Your task to perform on an android device: stop showing notifications on the lock screen Image 0: 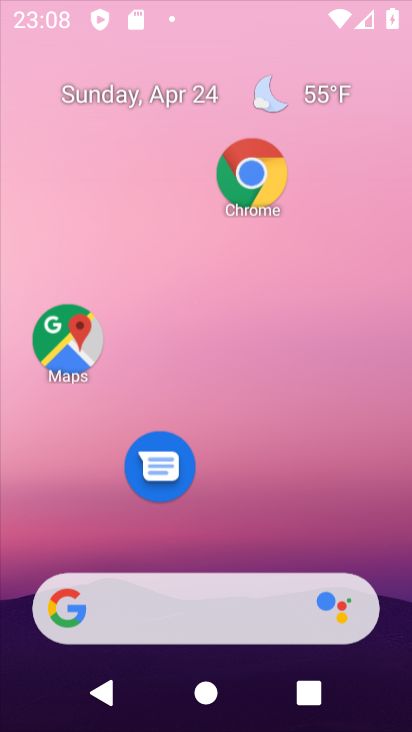
Step 0: drag from (253, 236) to (253, 35)
Your task to perform on an android device: stop showing notifications on the lock screen Image 1: 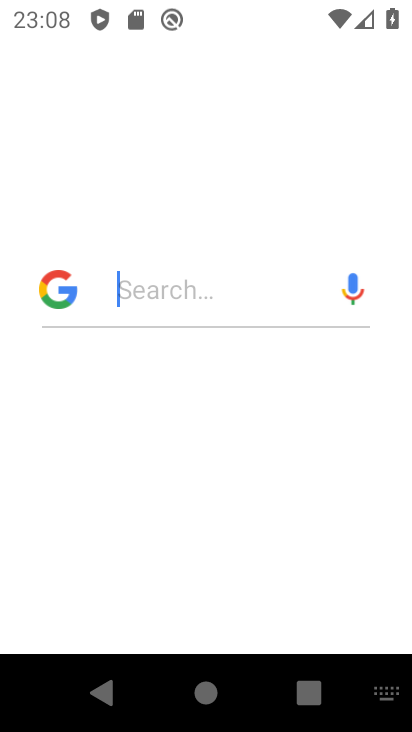
Step 1: press home button
Your task to perform on an android device: stop showing notifications on the lock screen Image 2: 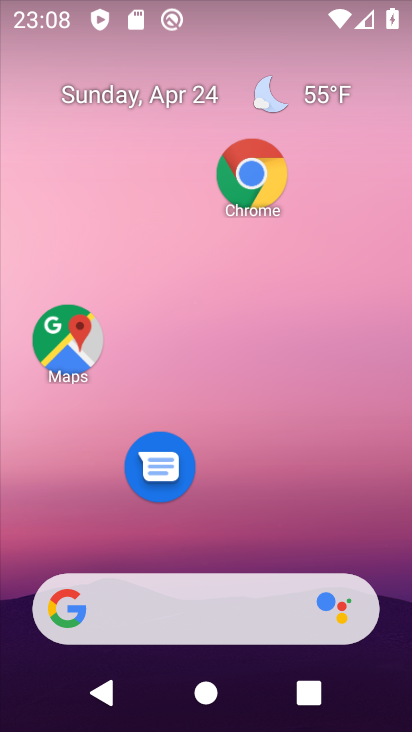
Step 2: drag from (254, 534) to (261, 43)
Your task to perform on an android device: stop showing notifications on the lock screen Image 3: 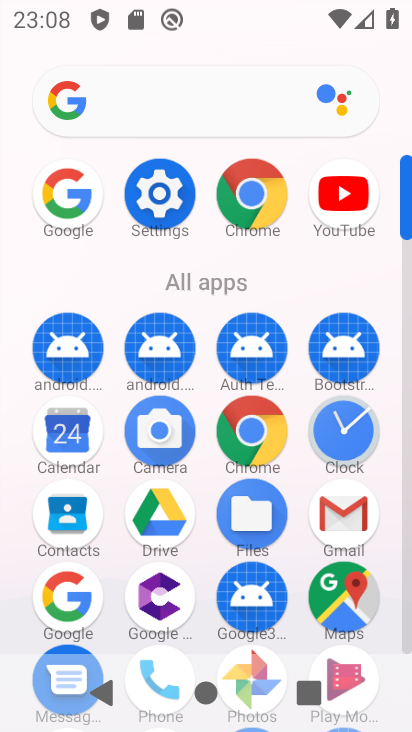
Step 3: click (164, 199)
Your task to perform on an android device: stop showing notifications on the lock screen Image 4: 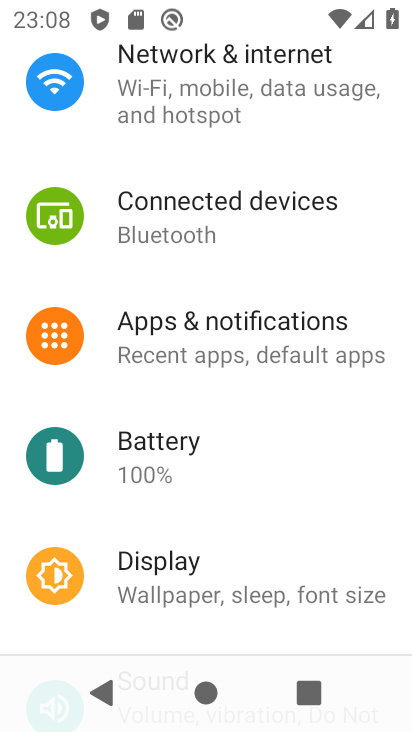
Step 4: click (242, 344)
Your task to perform on an android device: stop showing notifications on the lock screen Image 5: 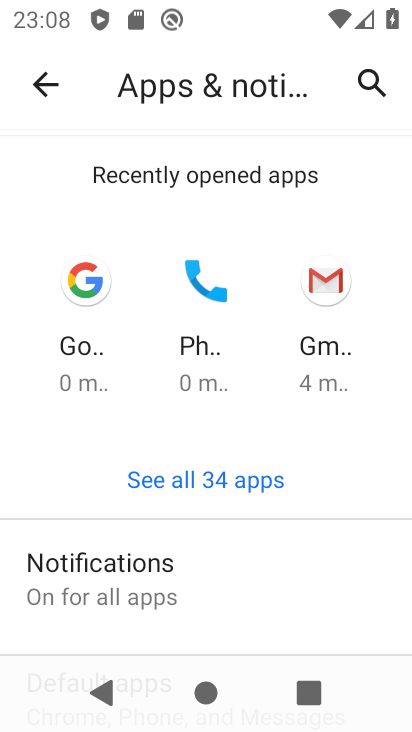
Step 5: click (152, 589)
Your task to perform on an android device: stop showing notifications on the lock screen Image 6: 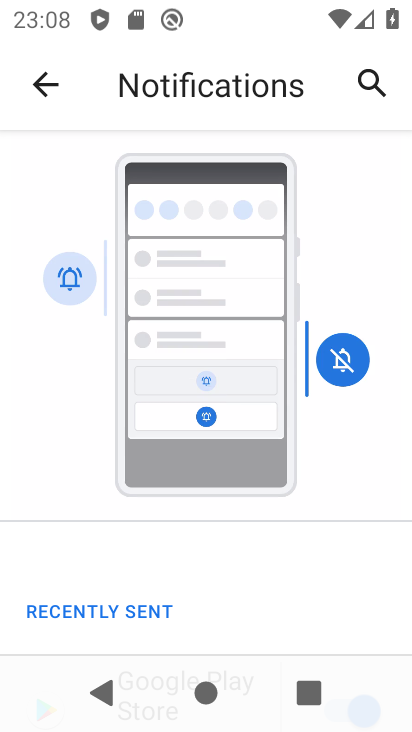
Step 6: drag from (188, 615) to (249, 87)
Your task to perform on an android device: stop showing notifications on the lock screen Image 7: 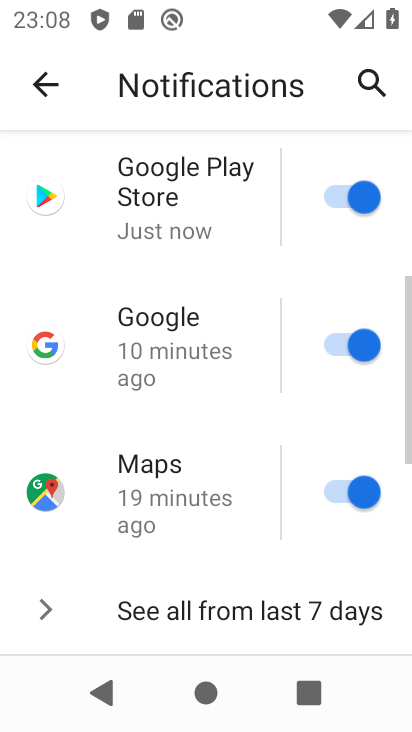
Step 7: drag from (242, 530) to (245, 179)
Your task to perform on an android device: stop showing notifications on the lock screen Image 8: 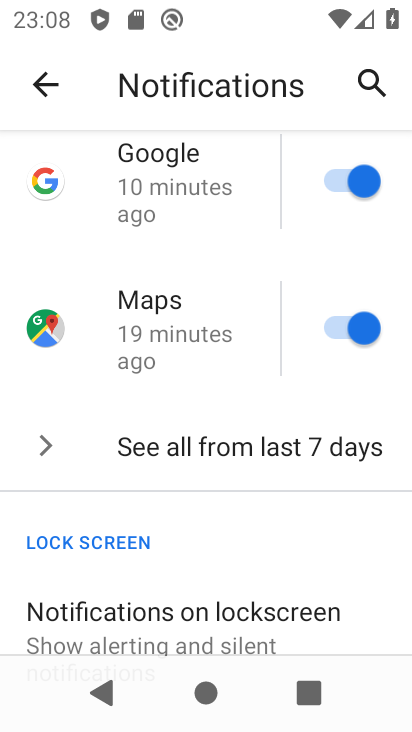
Step 8: click (152, 629)
Your task to perform on an android device: stop showing notifications on the lock screen Image 9: 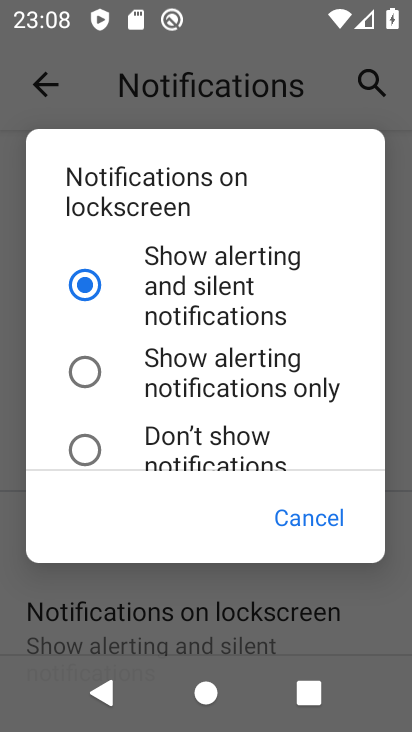
Step 9: click (91, 449)
Your task to perform on an android device: stop showing notifications on the lock screen Image 10: 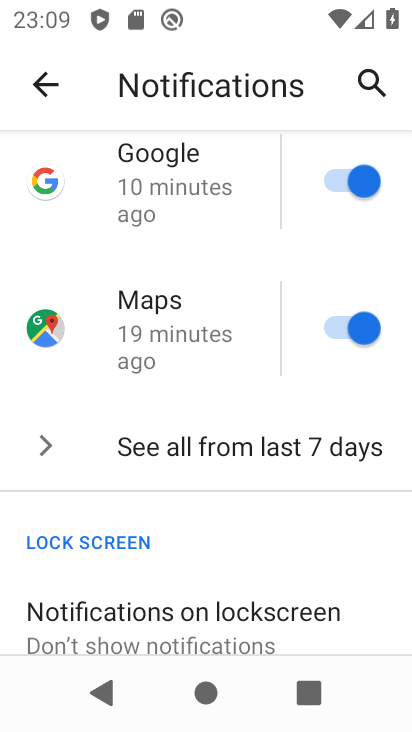
Step 10: task complete